Your task to perform on an android device: visit the assistant section in the google photos Image 0: 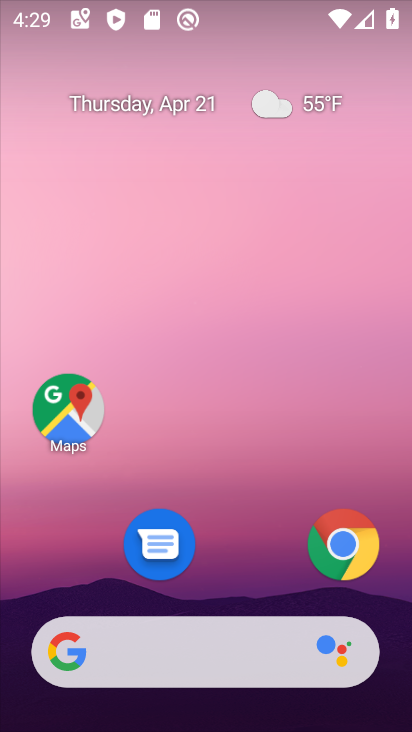
Step 0: drag from (227, 684) to (312, 101)
Your task to perform on an android device: visit the assistant section in the google photos Image 1: 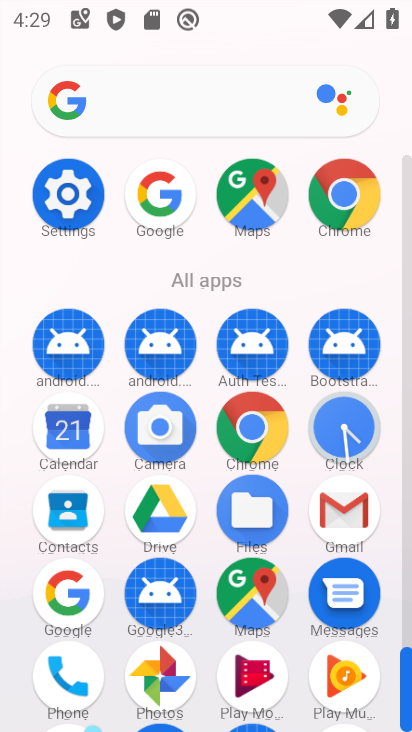
Step 1: click (163, 672)
Your task to perform on an android device: visit the assistant section in the google photos Image 2: 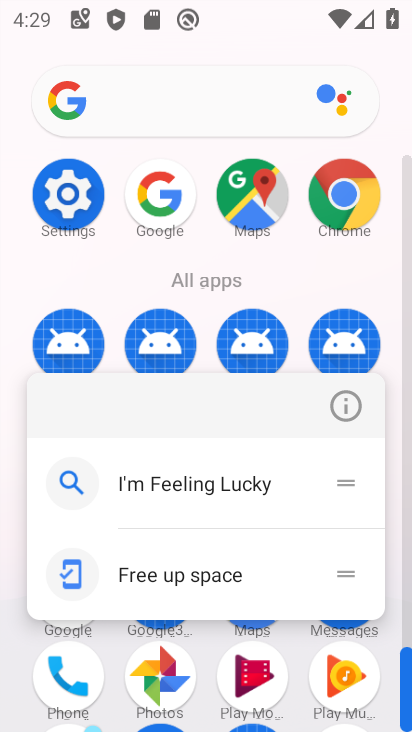
Step 2: click (145, 675)
Your task to perform on an android device: visit the assistant section in the google photos Image 3: 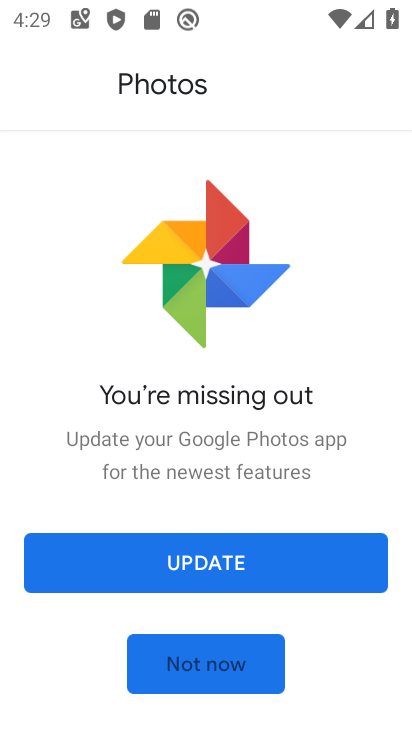
Step 3: click (223, 566)
Your task to perform on an android device: visit the assistant section in the google photos Image 4: 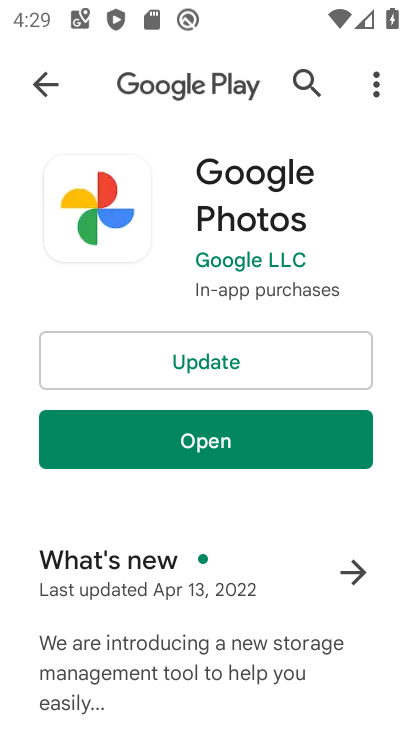
Step 4: click (220, 352)
Your task to perform on an android device: visit the assistant section in the google photos Image 5: 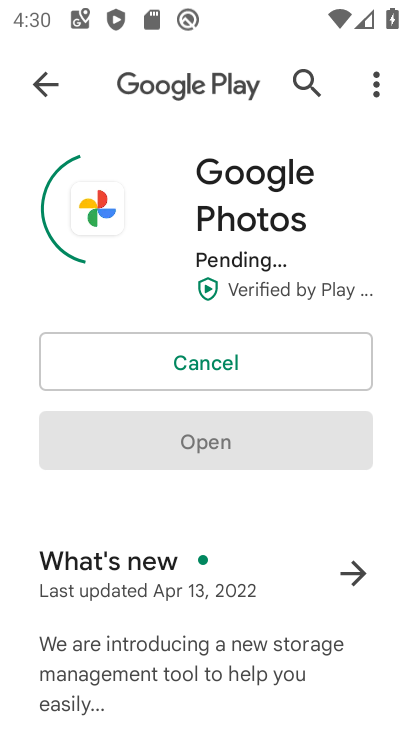
Step 5: task complete